Your task to perform on an android device: Open the calendar app, open the side menu, and click the "Day" option Image 0: 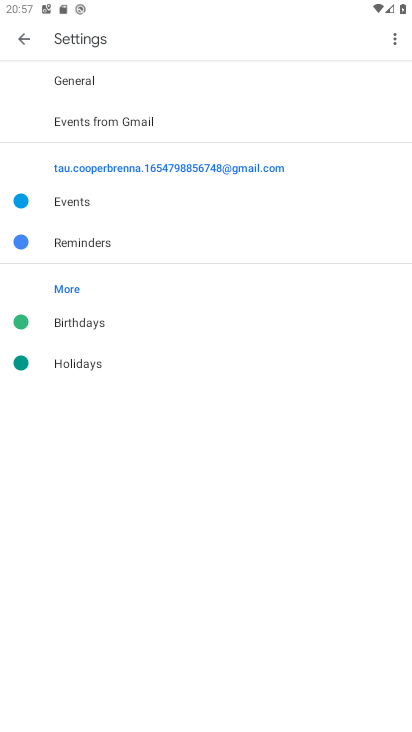
Step 0: press home button
Your task to perform on an android device: Open the calendar app, open the side menu, and click the "Day" option Image 1: 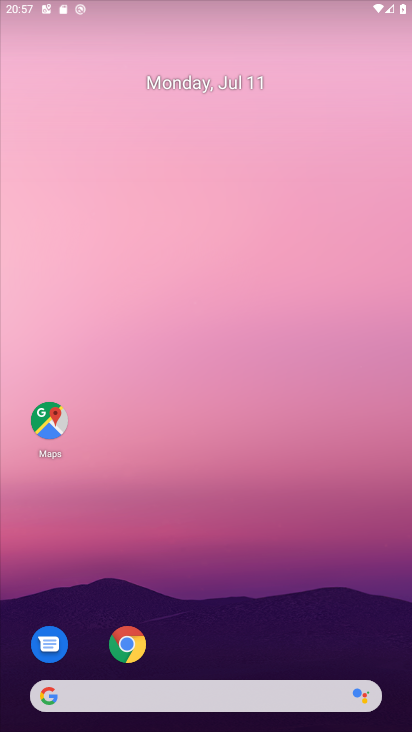
Step 1: drag from (193, 693) to (166, 434)
Your task to perform on an android device: Open the calendar app, open the side menu, and click the "Day" option Image 2: 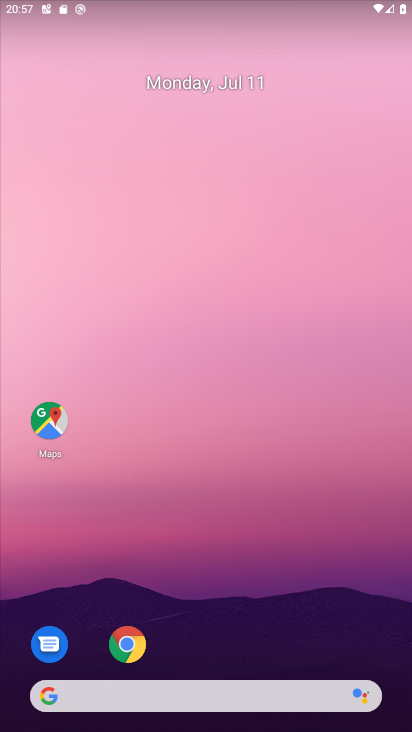
Step 2: drag from (225, 644) to (242, 207)
Your task to perform on an android device: Open the calendar app, open the side menu, and click the "Day" option Image 3: 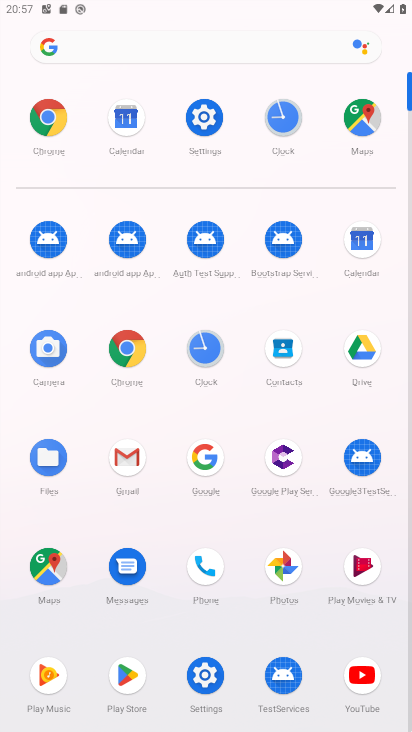
Step 3: click (132, 114)
Your task to perform on an android device: Open the calendar app, open the side menu, and click the "Day" option Image 4: 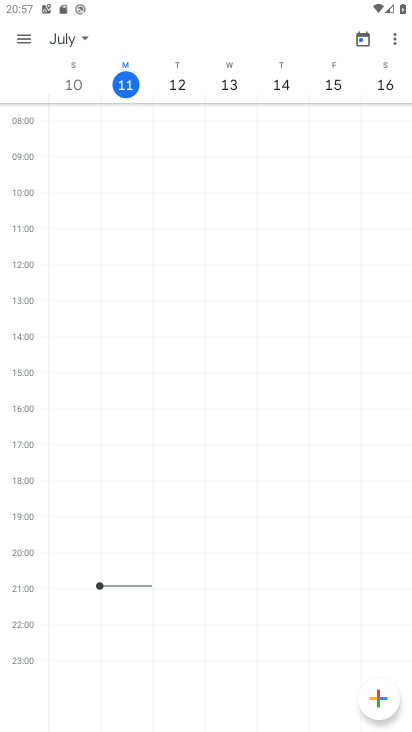
Step 4: click (25, 39)
Your task to perform on an android device: Open the calendar app, open the side menu, and click the "Day" option Image 5: 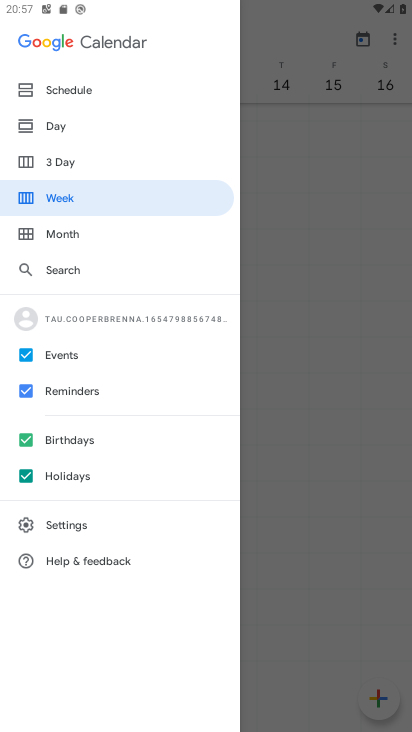
Step 5: click (62, 121)
Your task to perform on an android device: Open the calendar app, open the side menu, and click the "Day" option Image 6: 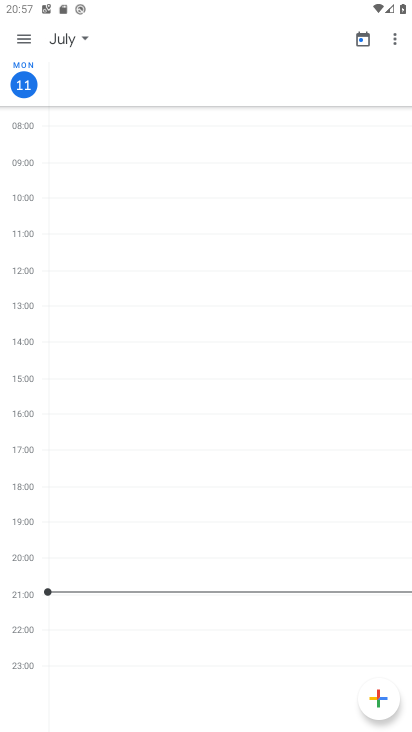
Step 6: click (13, 35)
Your task to perform on an android device: Open the calendar app, open the side menu, and click the "Day" option Image 7: 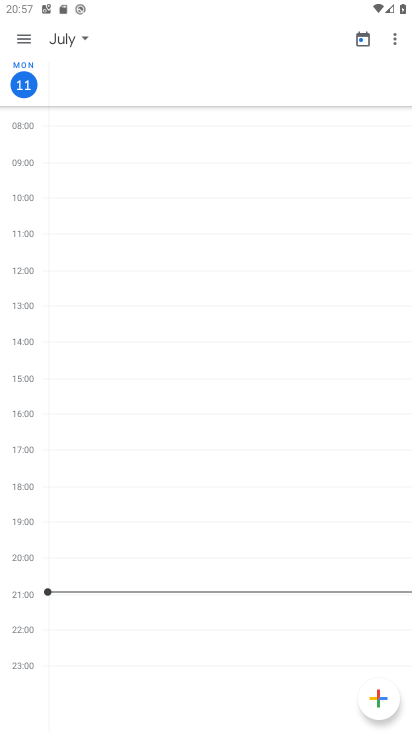
Step 7: click (23, 31)
Your task to perform on an android device: Open the calendar app, open the side menu, and click the "Day" option Image 8: 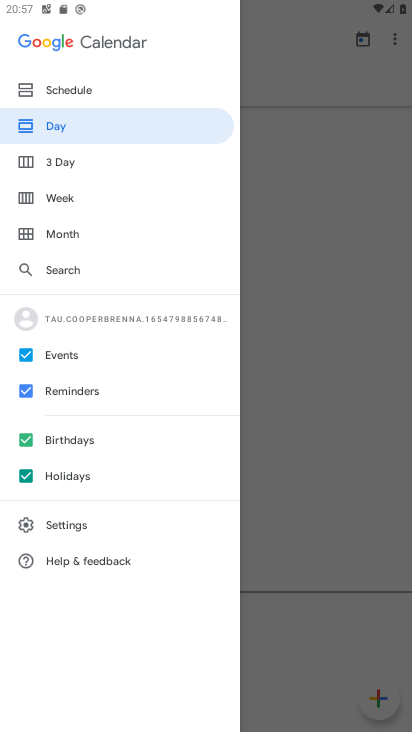
Step 8: click (71, 240)
Your task to perform on an android device: Open the calendar app, open the side menu, and click the "Day" option Image 9: 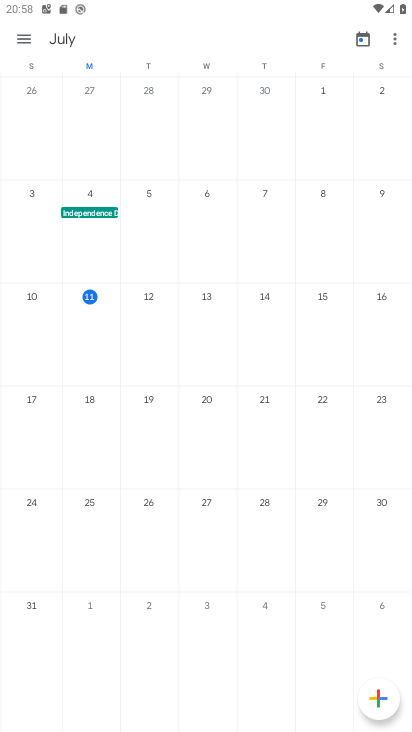
Step 9: click (137, 301)
Your task to perform on an android device: Open the calendar app, open the side menu, and click the "Day" option Image 10: 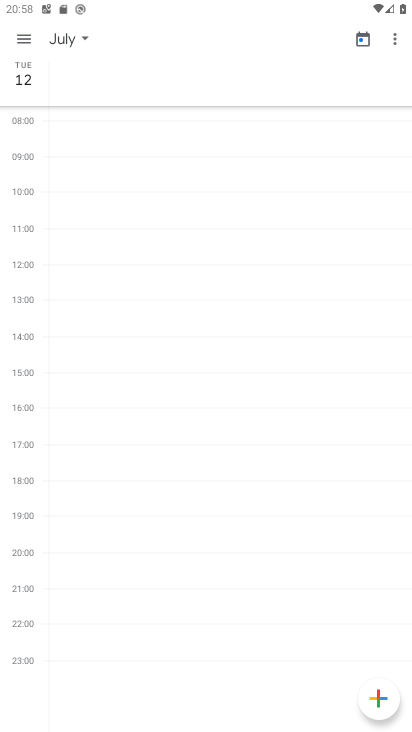
Step 10: task complete